Your task to perform on an android device: Go to eBay Image 0: 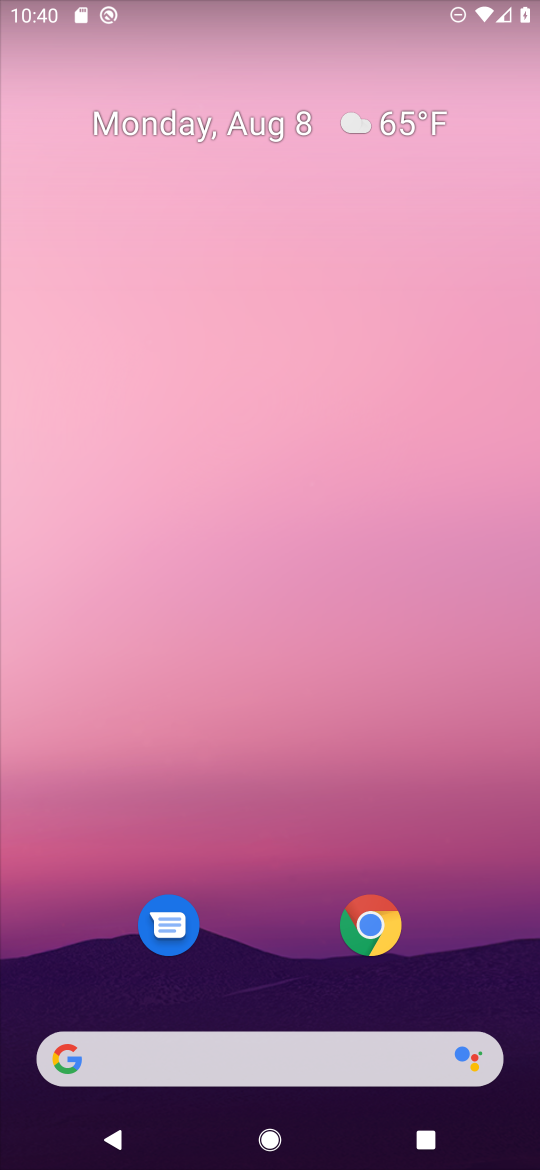
Step 0: drag from (275, 829) to (307, 104)
Your task to perform on an android device: Go to eBay Image 1: 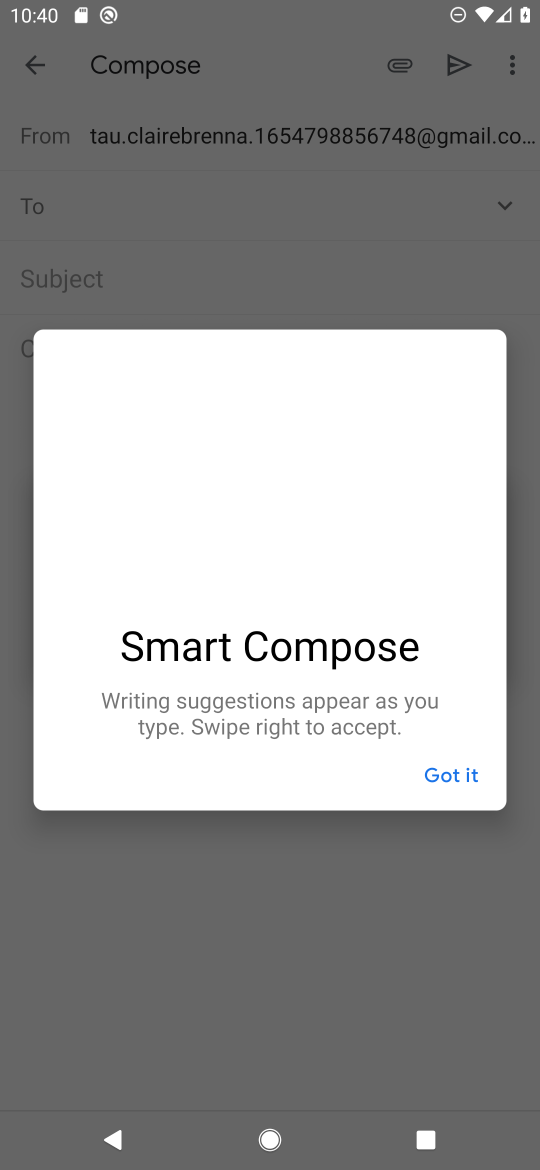
Step 1: press home button
Your task to perform on an android device: Go to eBay Image 2: 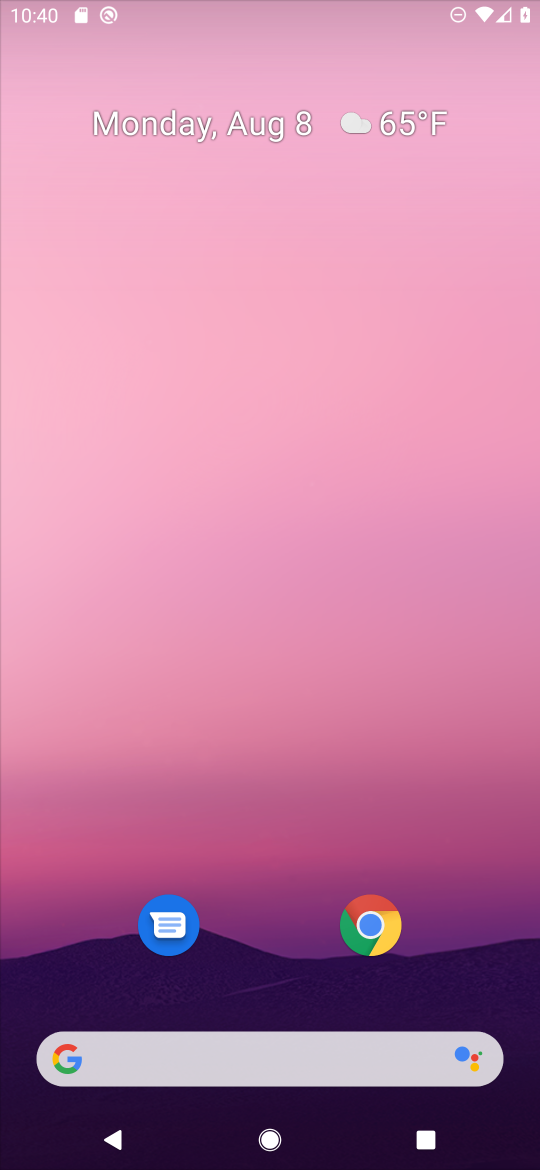
Step 2: press home button
Your task to perform on an android device: Go to eBay Image 3: 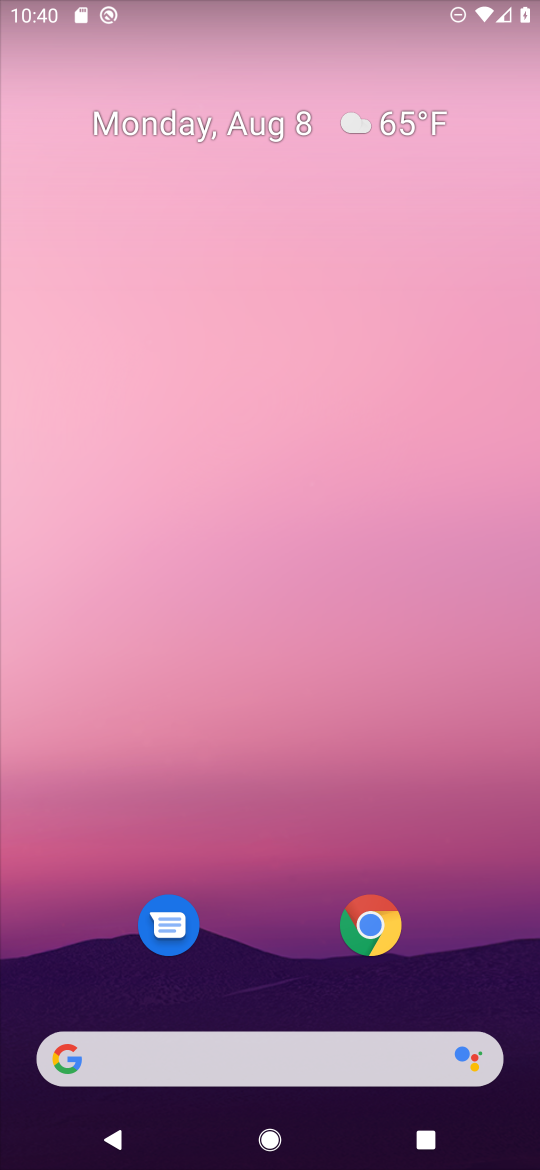
Step 3: press home button
Your task to perform on an android device: Go to eBay Image 4: 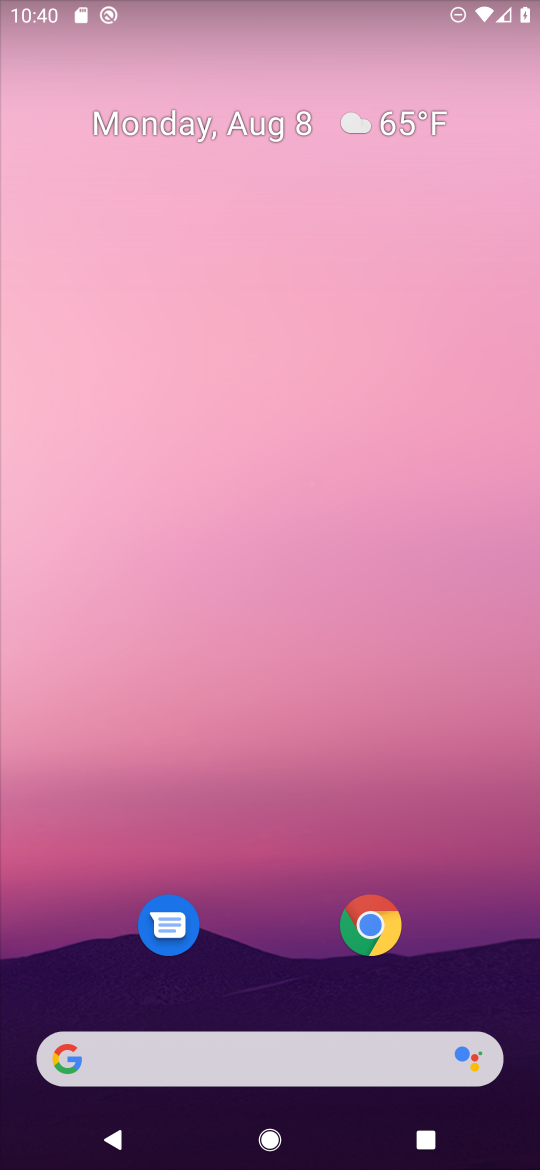
Step 4: drag from (251, 833) to (295, 36)
Your task to perform on an android device: Go to eBay Image 5: 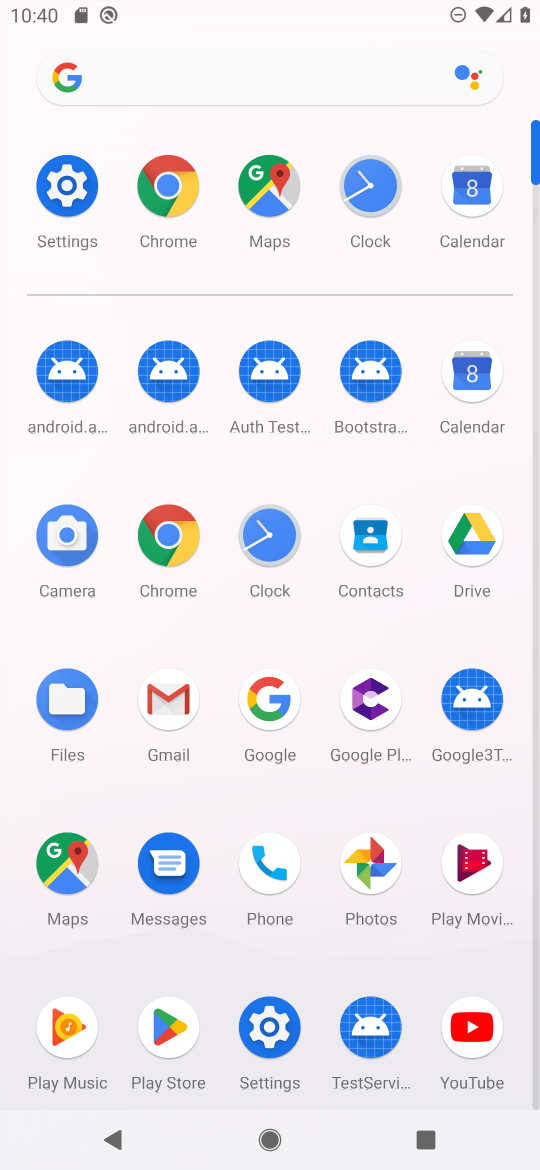
Step 5: click (153, 535)
Your task to perform on an android device: Go to eBay Image 6: 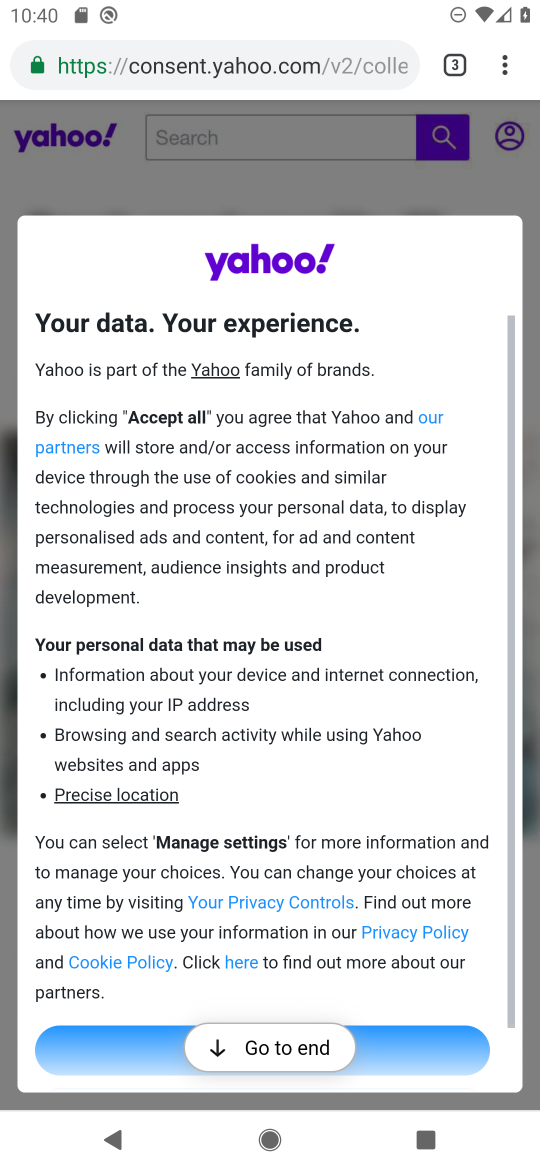
Step 6: click (256, 80)
Your task to perform on an android device: Go to eBay Image 7: 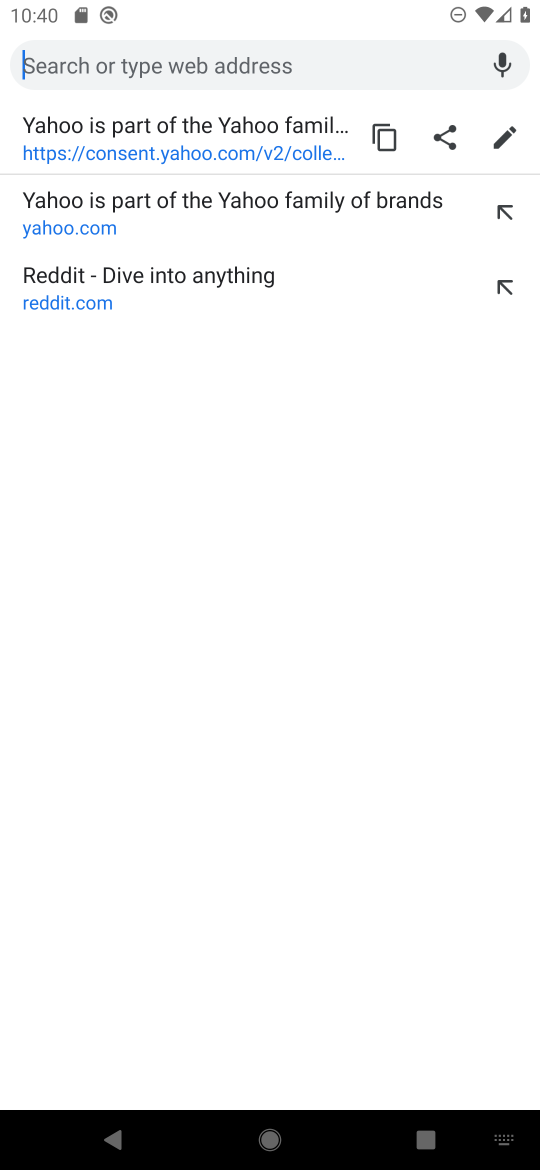
Step 7: type "bay"
Your task to perform on an android device: Go to eBay Image 8: 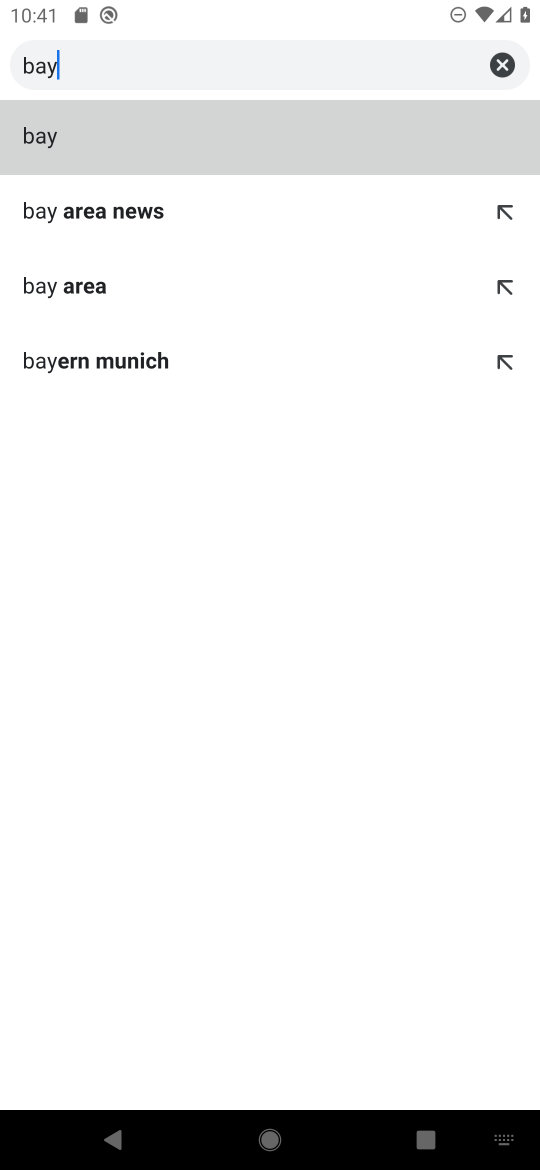
Step 8: type "ebay"
Your task to perform on an android device: Go to eBay Image 9: 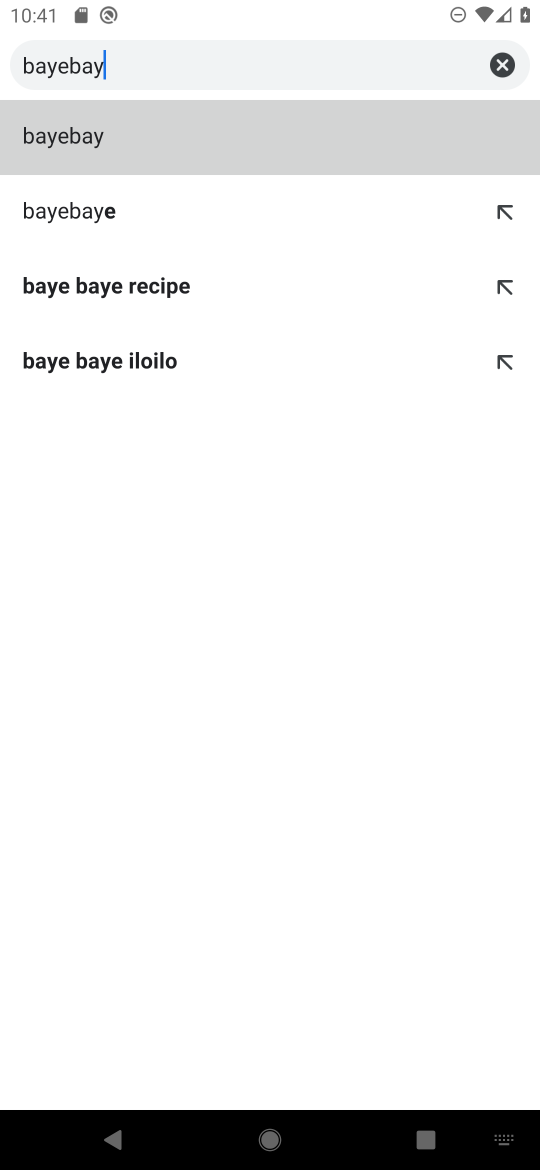
Step 9: click (263, 137)
Your task to perform on an android device: Go to eBay Image 10: 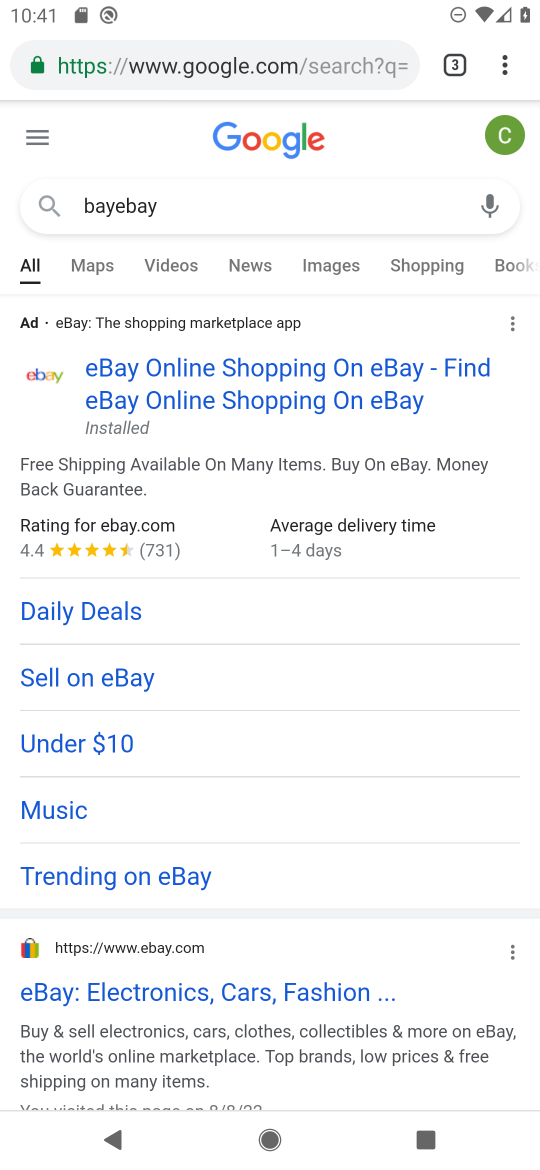
Step 10: click (134, 980)
Your task to perform on an android device: Go to eBay Image 11: 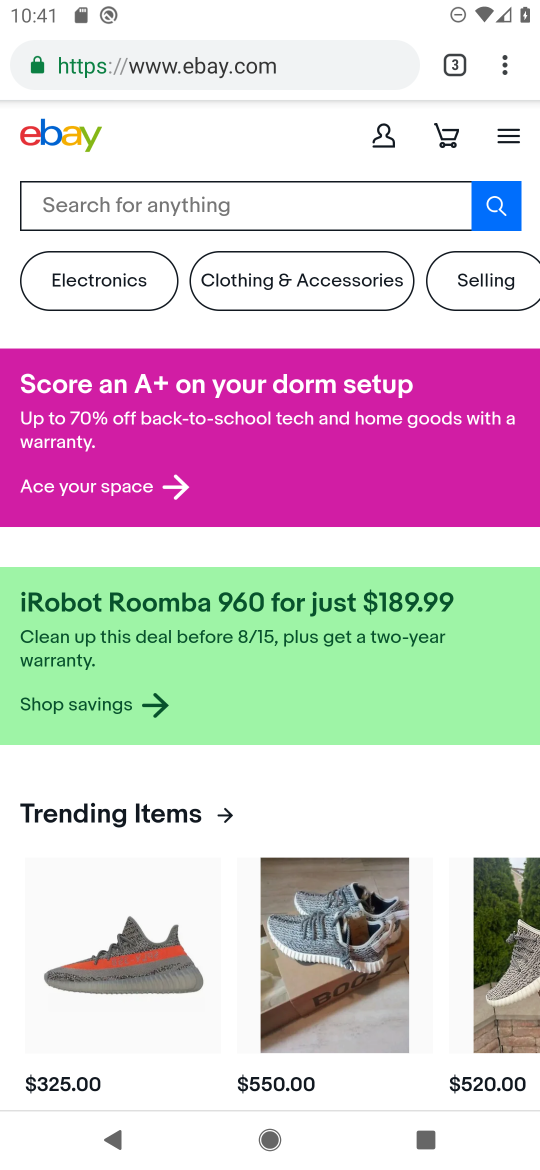
Step 11: task complete